Your task to perform on an android device: Open settings on Google Maps Image 0: 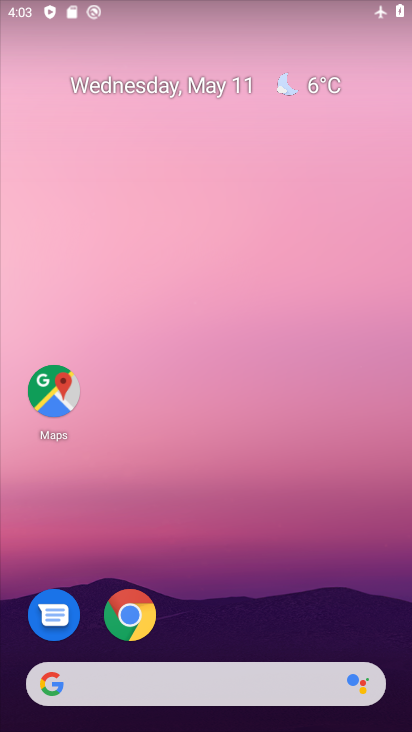
Step 0: click (63, 403)
Your task to perform on an android device: Open settings on Google Maps Image 1: 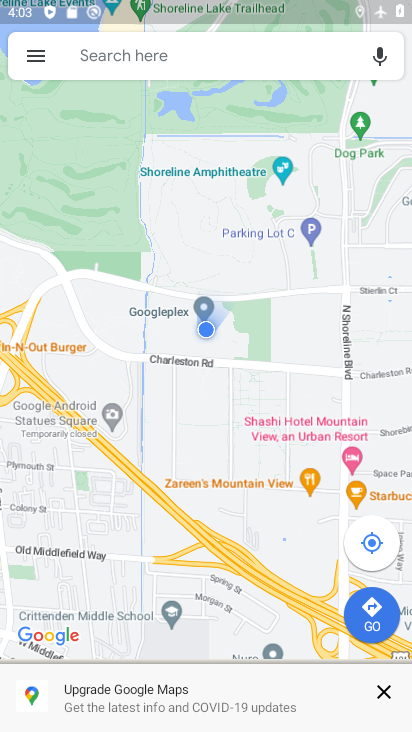
Step 1: click (28, 52)
Your task to perform on an android device: Open settings on Google Maps Image 2: 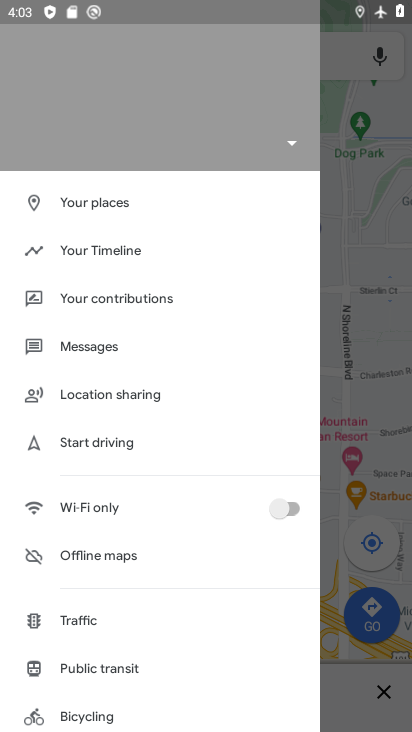
Step 2: drag from (161, 605) to (119, 239)
Your task to perform on an android device: Open settings on Google Maps Image 3: 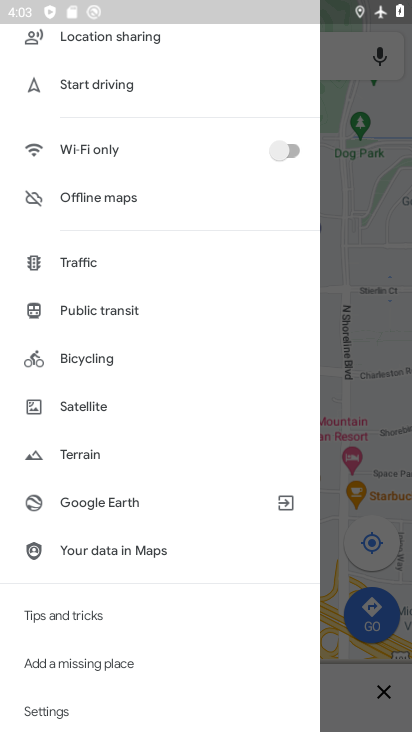
Step 3: click (73, 708)
Your task to perform on an android device: Open settings on Google Maps Image 4: 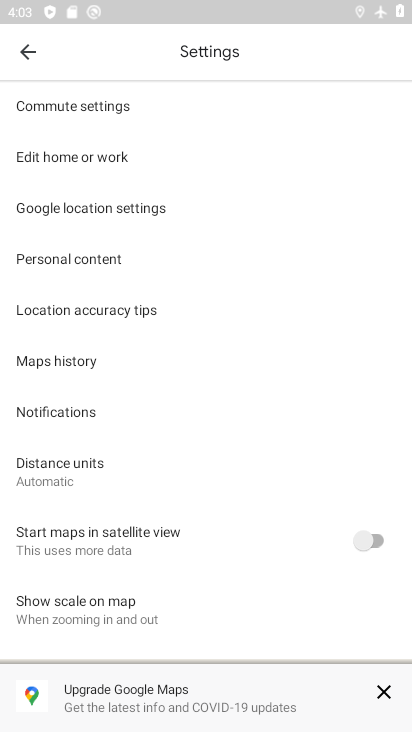
Step 4: task complete